Your task to perform on an android device: Open settings Image 0: 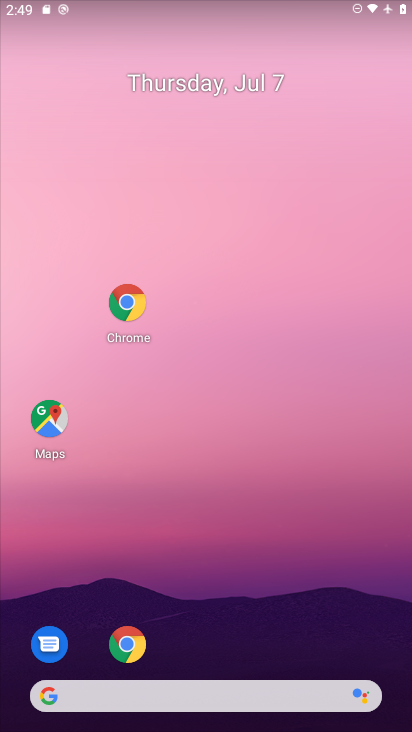
Step 0: click (176, 681)
Your task to perform on an android device: Open settings Image 1: 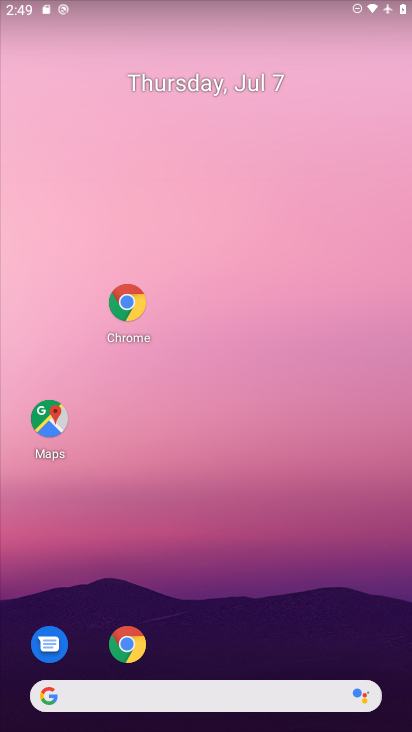
Step 1: drag from (202, 581) to (274, 10)
Your task to perform on an android device: Open settings Image 2: 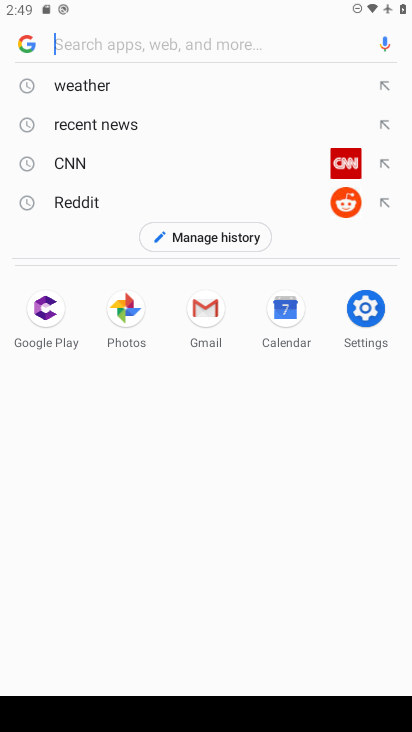
Step 2: press back button
Your task to perform on an android device: Open settings Image 3: 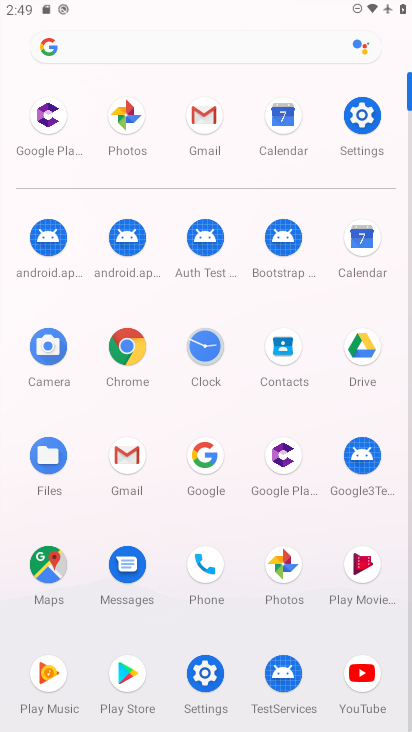
Step 3: click (215, 672)
Your task to perform on an android device: Open settings Image 4: 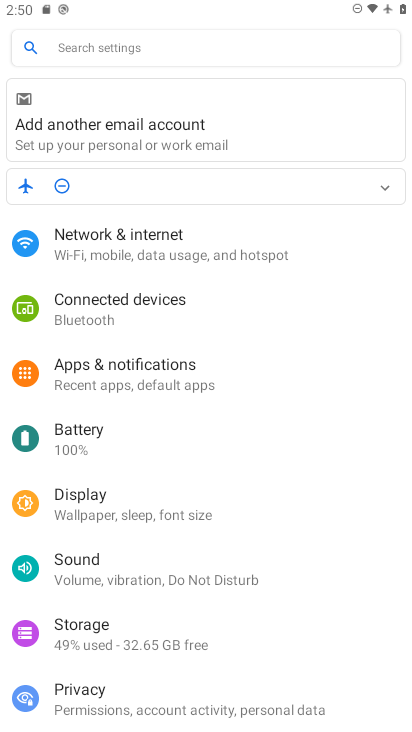
Step 4: task complete